Your task to perform on an android device: Go to network settings Image 0: 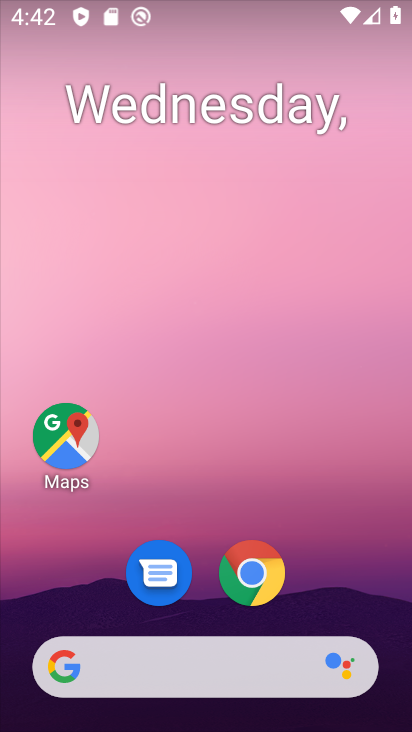
Step 0: drag from (365, 589) to (377, 121)
Your task to perform on an android device: Go to network settings Image 1: 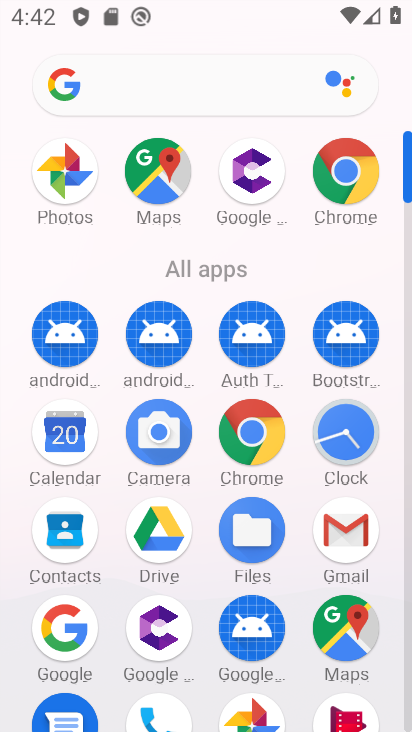
Step 1: drag from (310, 297) to (315, 39)
Your task to perform on an android device: Go to network settings Image 2: 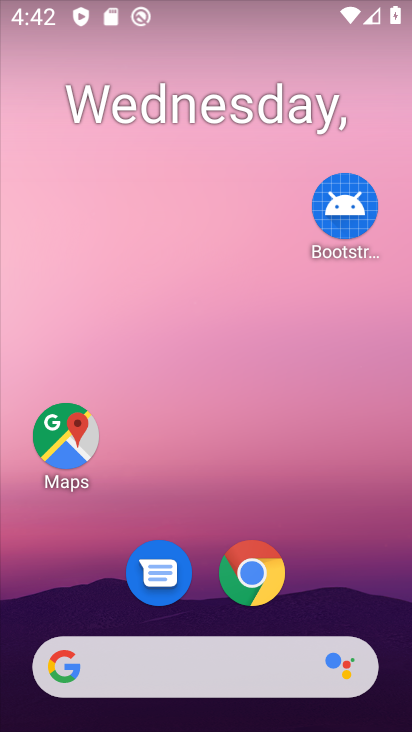
Step 2: drag from (352, 565) to (354, 14)
Your task to perform on an android device: Go to network settings Image 3: 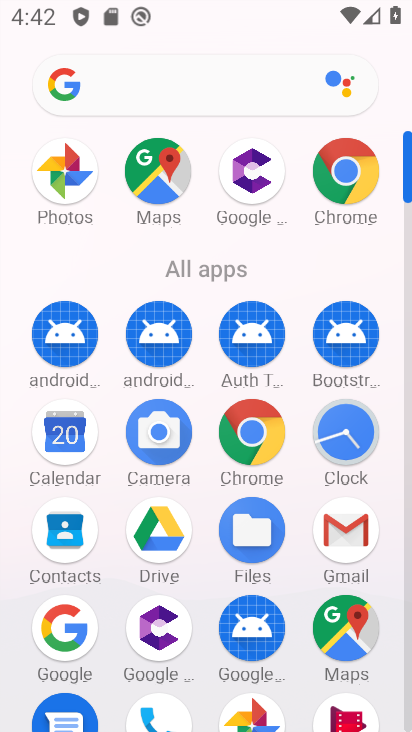
Step 3: drag from (285, 269) to (367, 66)
Your task to perform on an android device: Go to network settings Image 4: 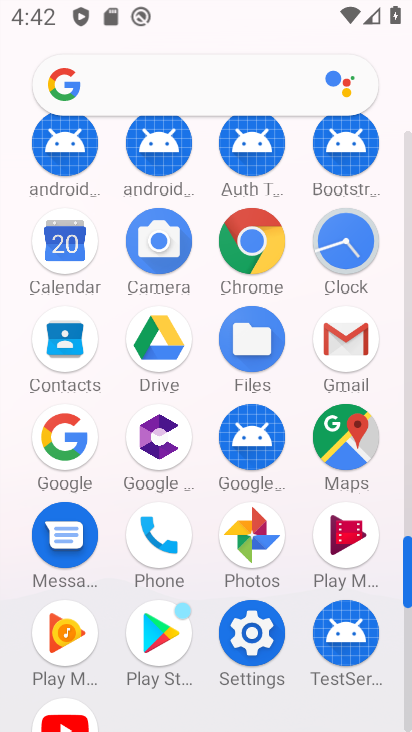
Step 4: click (251, 630)
Your task to perform on an android device: Go to network settings Image 5: 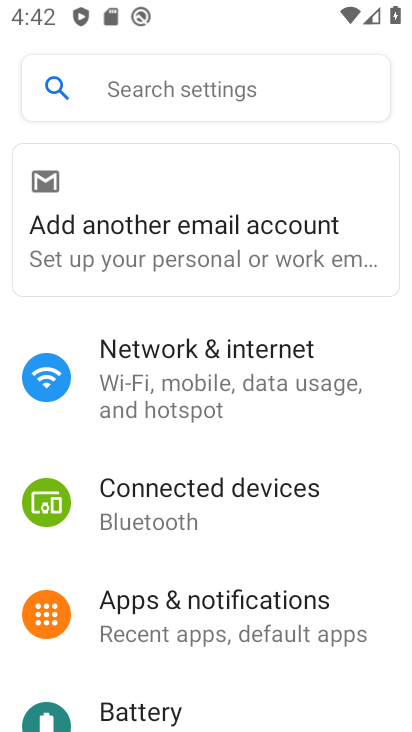
Step 5: click (199, 369)
Your task to perform on an android device: Go to network settings Image 6: 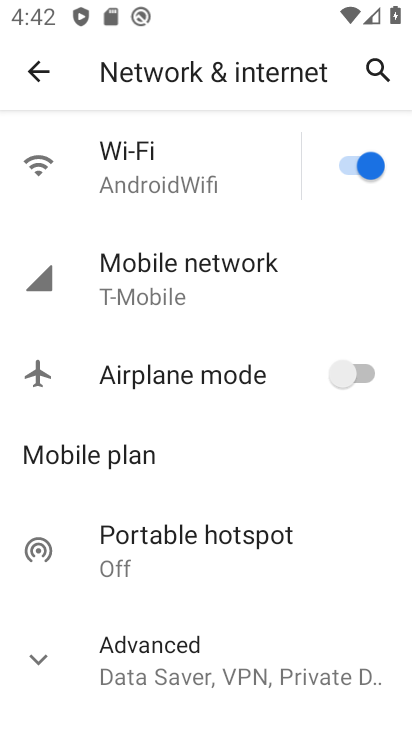
Step 6: task complete